Your task to perform on an android device: open chrome privacy settings Image 0: 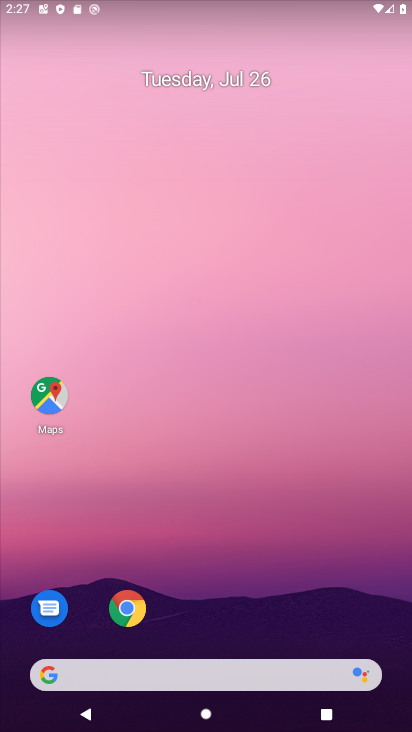
Step 0: drag from (258, 622) to (252, 133)
Your task to perform on an android device: open chrome privacy settings Image 1: 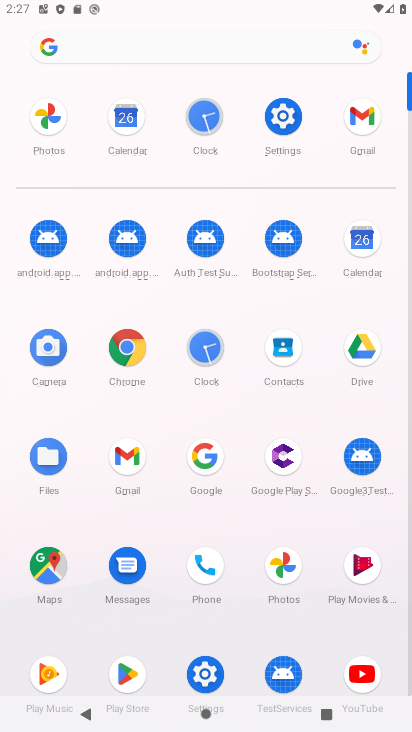
Step 1: click (284, 137)
Your task to perform on an android device: open chrome privacy settings Image 2: 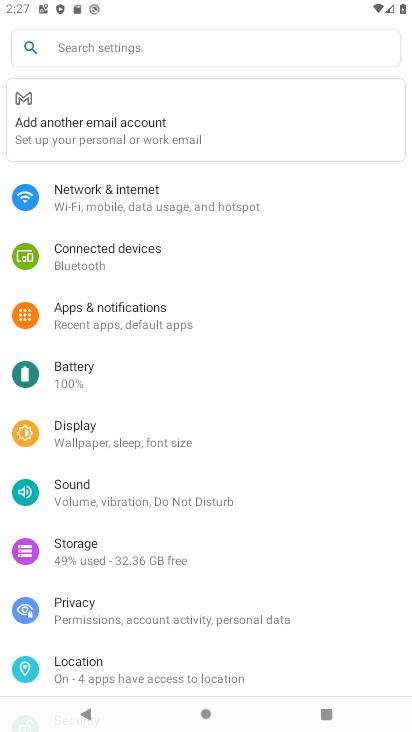
Step 2: task complete